Your task to perform on an android device: Do I have any events today? Image 0: 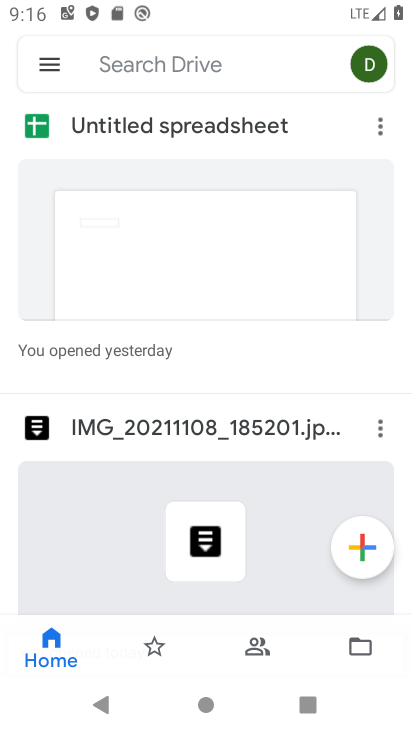
Step 0: press home button
Your task to perform on an android device: Do I have any events today? Image 1: 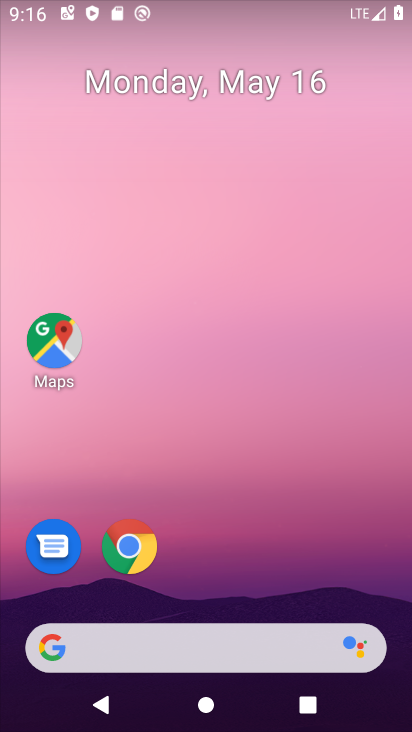
Step 1: drag from (244, 679) to (243, 289)
Your task to perform on an android device: Do I have any events today? Image 2: 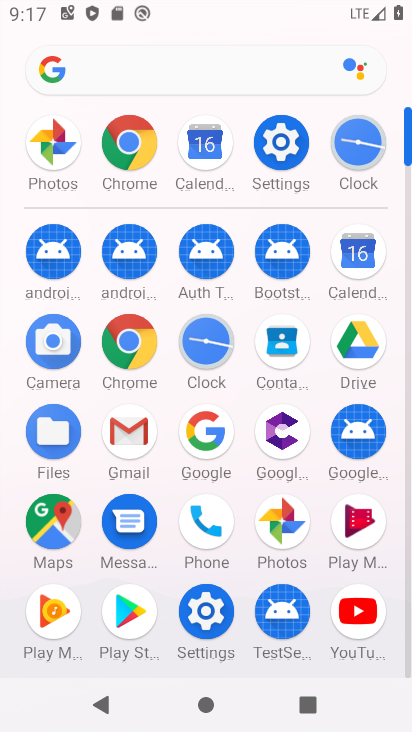
Step 2: click (334, 268)
Your task to perform on an android device: Do I have any events today? Image 3: 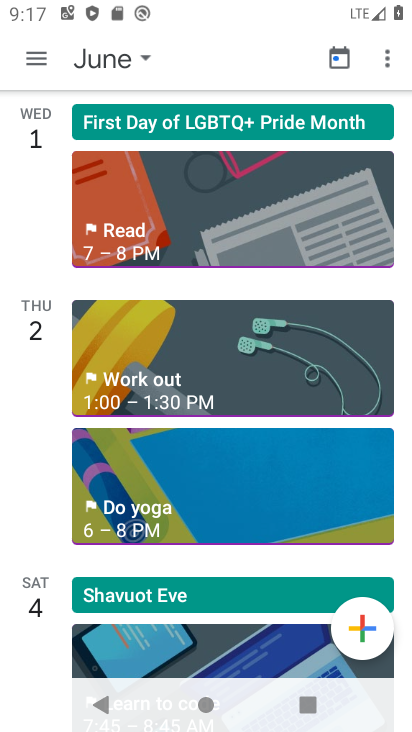
Step 3: click (26, 74)
Your task to perform on an android device: Do I have any events today? Image 4: 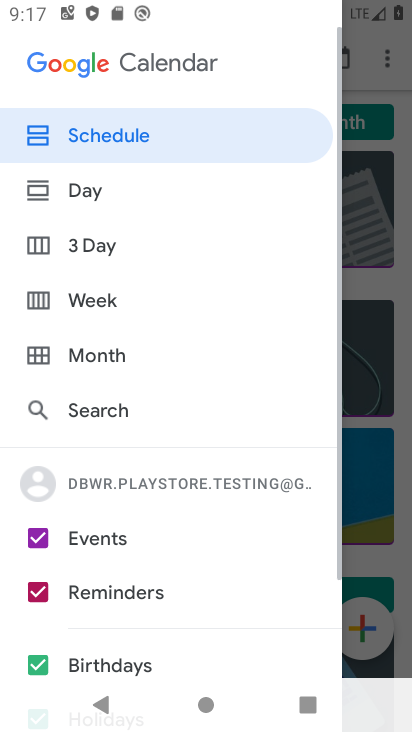
Step 4: click (118, 357)
Your task to perform on an android device: Do I have any events today? Image 5: 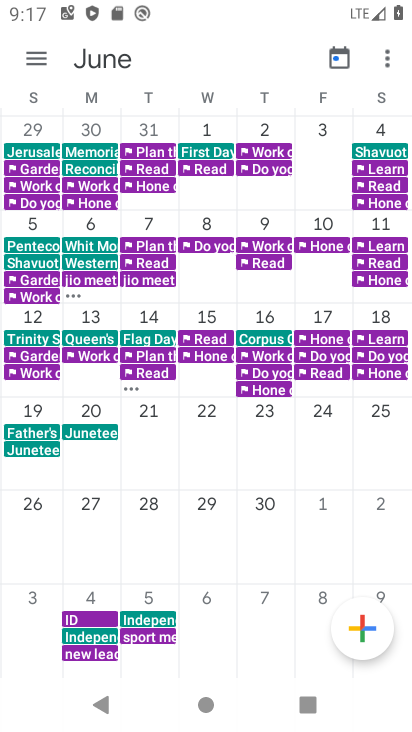
Step 5: drag from (42, 310) to (391, 218)
Your task to perform on an android device: Do I have any events today? Image 6: 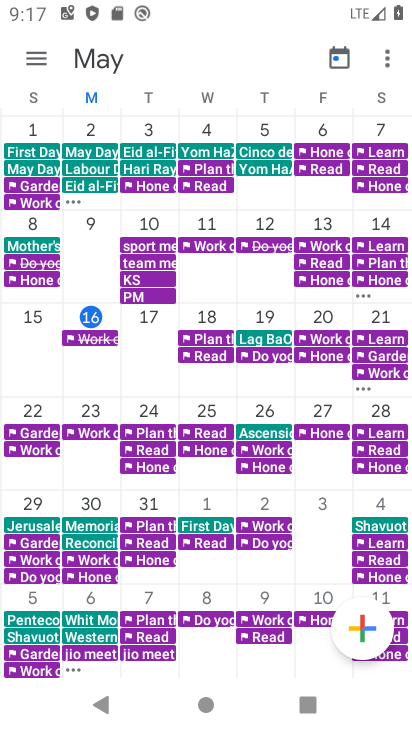
Step 6: click (103, 334)
Your task to perform on an android device: Do I have any events today? Image 7: 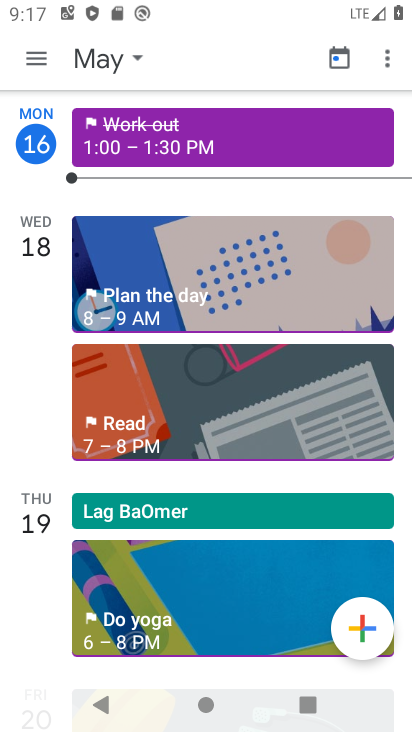
Step 7: task complete